Your task to perform on an android device: change notification settings in the gmail app Image 0: 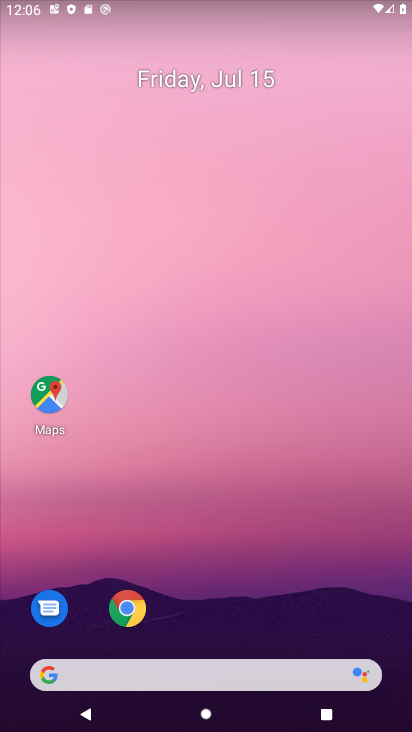
Step 0: drag from (280, 679) to (245, 159)
Your task to perform on an android device: change notification settings in the gmail app Image 1: 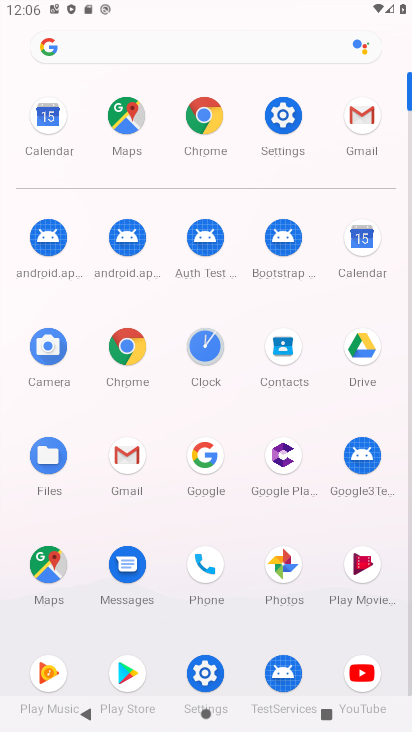
Step 1: click (113, 449)
Your task to perform on an android device: change notification settings in the gmail app Image 2: 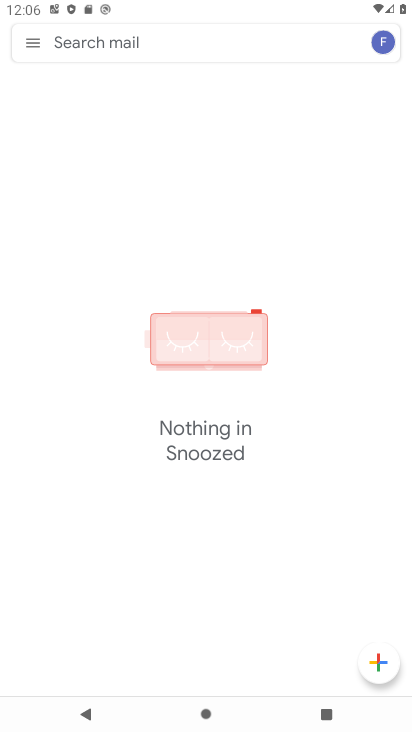
Step 2: click (31, 37)
Your task to perform on an android device: change notification settings in the gmail app Image 3: 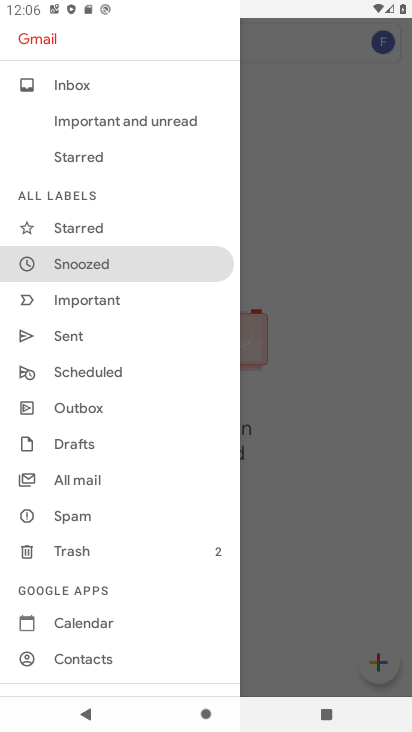
Step 3: drag from (106, 641) to (121, 265)
Your task to perform on an android device: change notification settings in the gmail app Image 4: 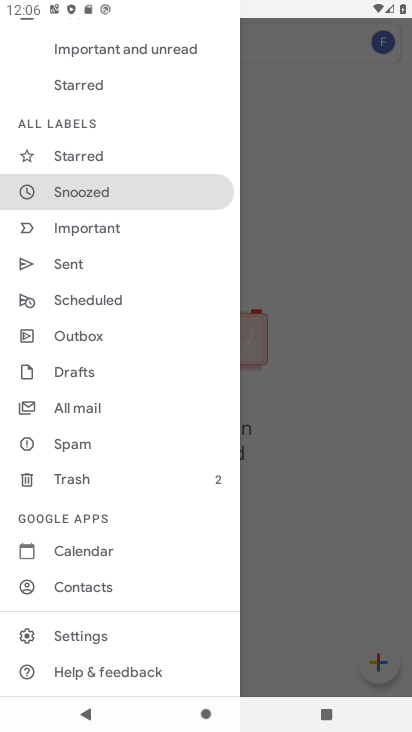
Step 4: click (97, 631)
Your task to perform on an android device: change notification settings in the gmail app Image 5: 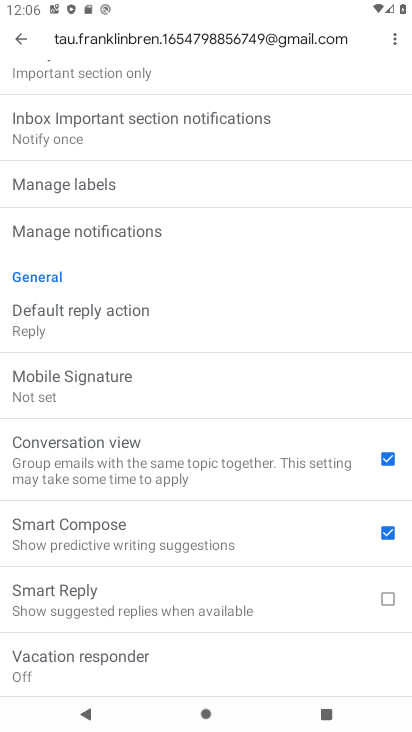
Step 5: click (116, 237)
Your task to perform on an android device: change notification settings in the gmail app Image 6: 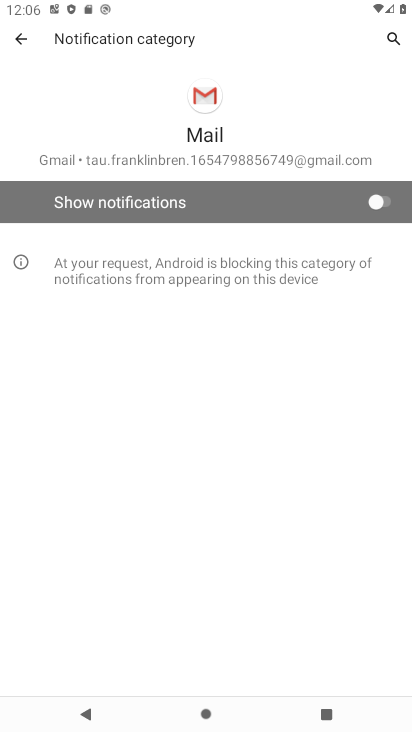
Step 6: click (385, 202)
Your task to perform on an android device: change notification settings in the gmail app Image 7: 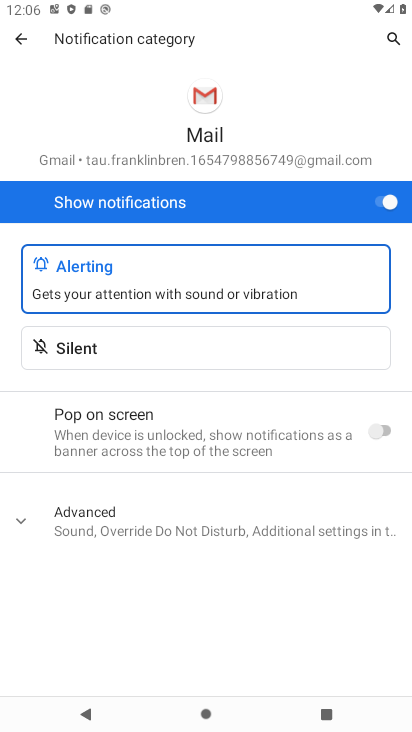
Step 7: task complete